Your task to perform on an android device: Open internet settings Image 0: 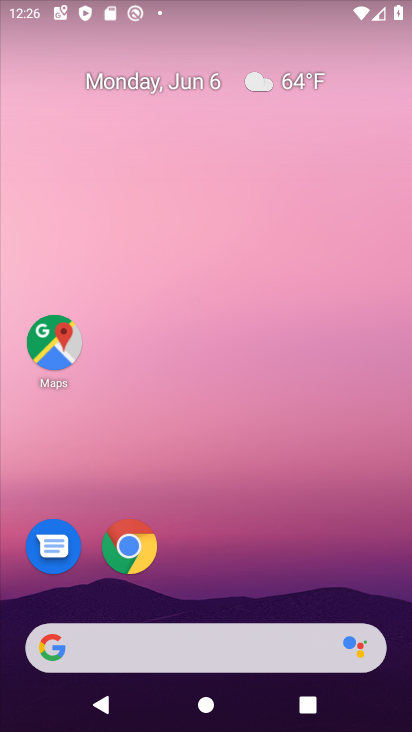
Step 0: drag from (316, 491) to (291, 184)
Your task to perform on an android device: Open internet settings Image 1: 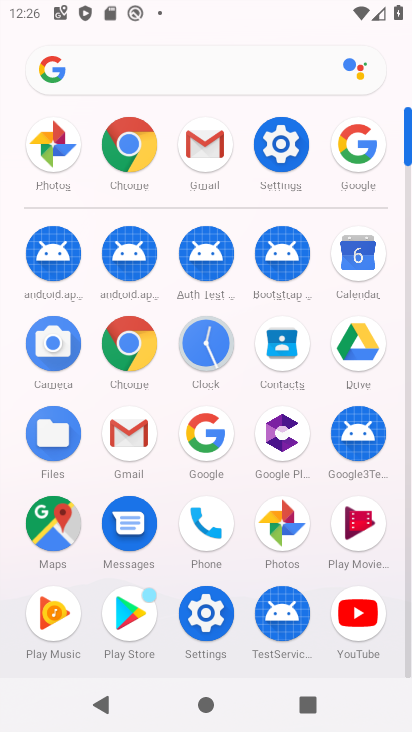
Step 1: click (277, 152)
Your task to perform on an android device: Open internet settings Image 2: 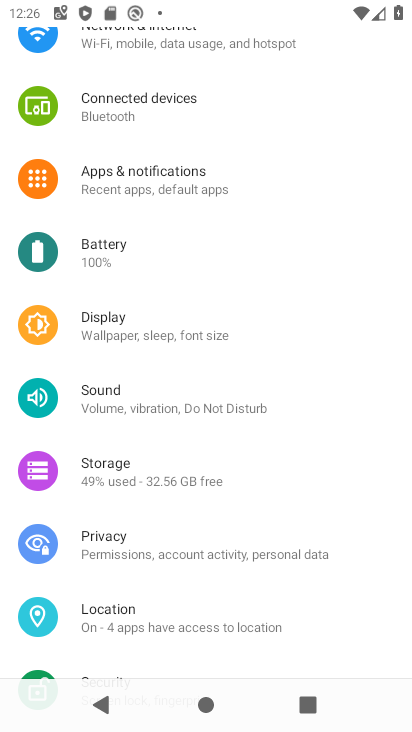
Step 2: drag from (200, 85) to (186, 324)
Your task to perform on an android device: Open internet settings Image 3: 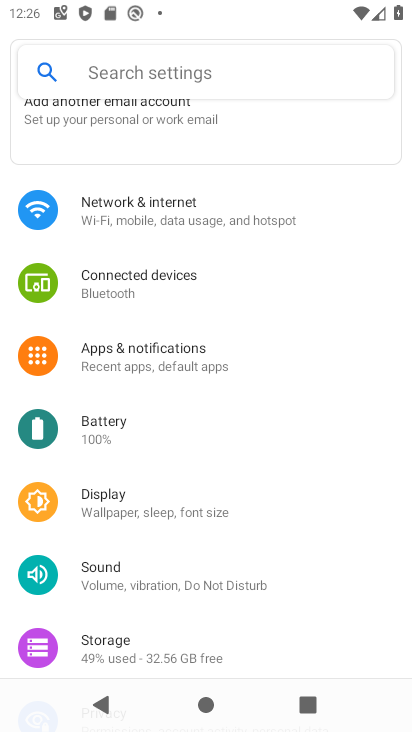
Step 3: click (151, 217)
Your task to perform on an android device: Open internet settings Image 4: 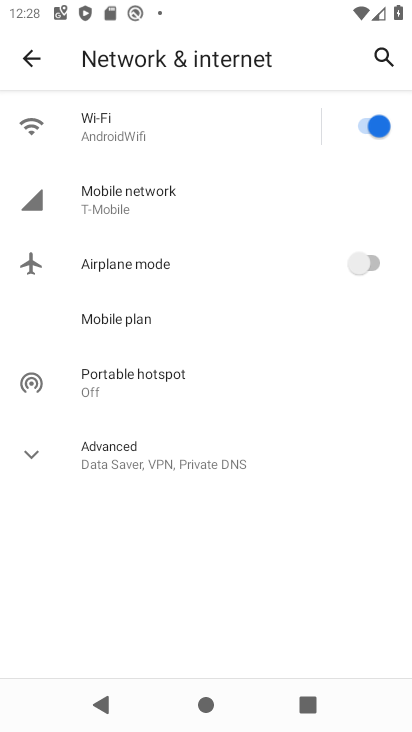
Step 4: task complete